Your task to perform on an android device: change your default location settings in chrome Image 0: 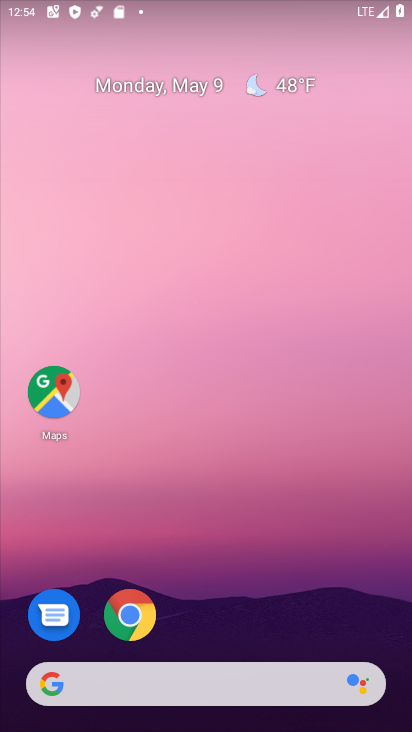
Step 0: click (132, 615)
Your task to perform on an android device: change your default location settings in chrome Image 1: 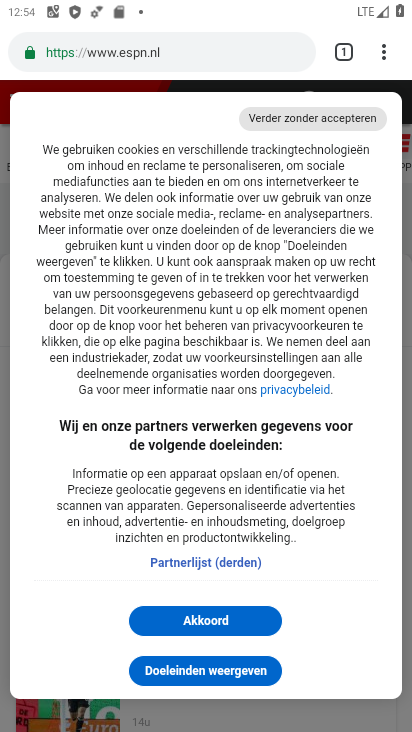
Step 1: click (382, 56)
Your task to perform on an android device: change your default location settings in chrome Image 2: 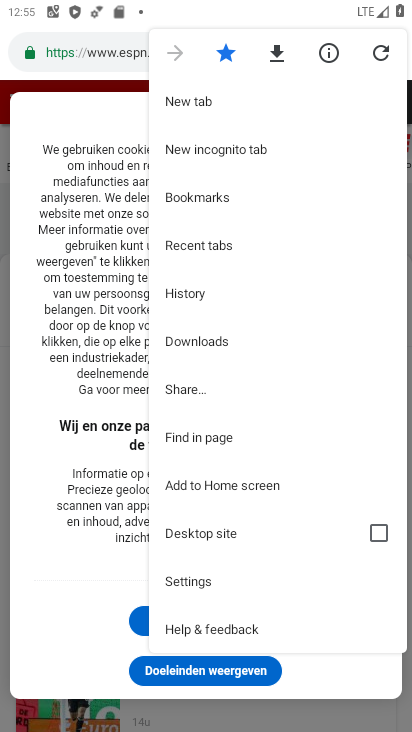
Step 2: click (199, 581)
Your task to perform on an android device: change your default location settings in chrome Image 3: 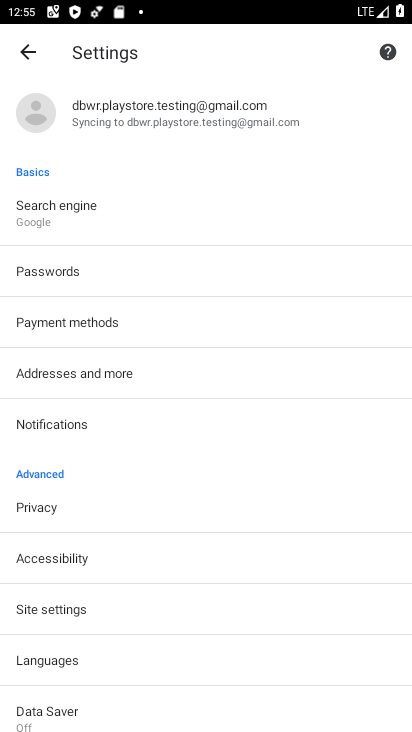
Step 3: click (34, 613)
Your task to perform on an android device: change your default location settings in chrome Image 4: 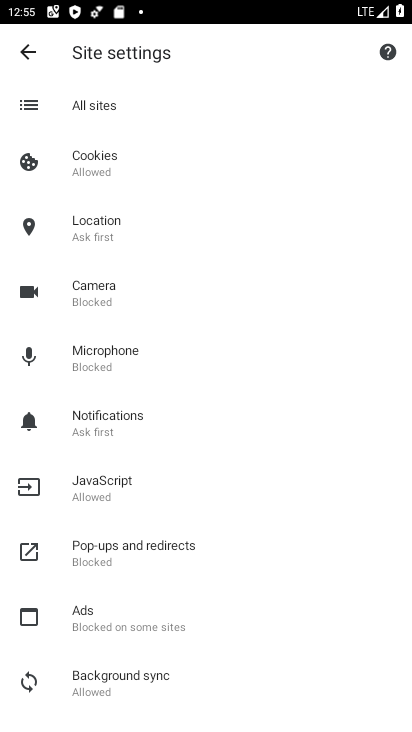
Step 4: click (85, 221)
Your task to perform on an android device: change your default location settings in chrome Image 5: 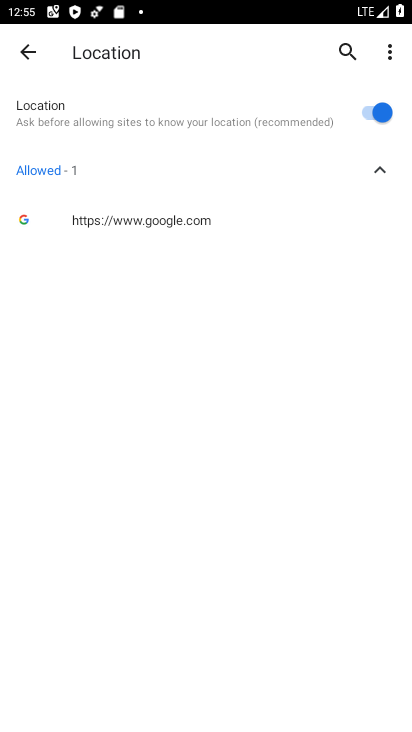
Step 5: click (367, 109)
Your task to perform on an android device: change your default location settings in chrome Image 6: 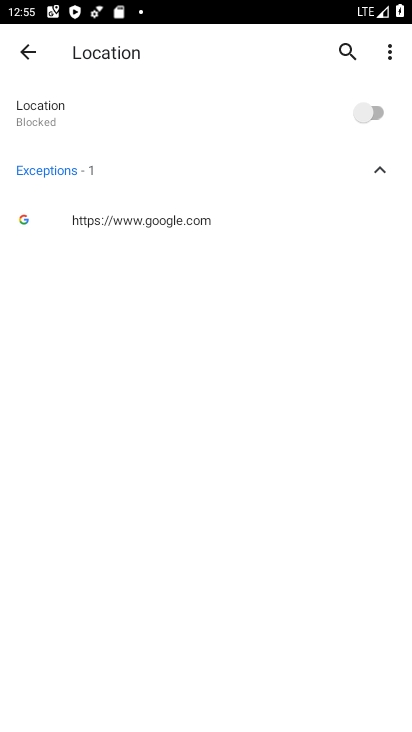
Step 6: task complete